Your task to perform on an android device: Go to notification settings Image 0: 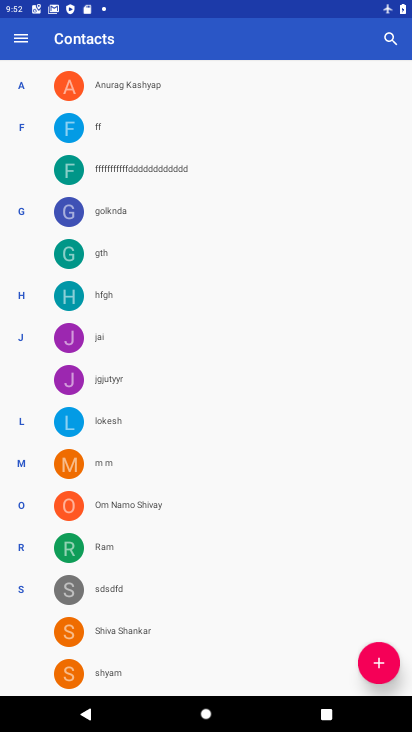
Step 0: press home button
Your task to perform on an android device: Go to notification settings Image 1: 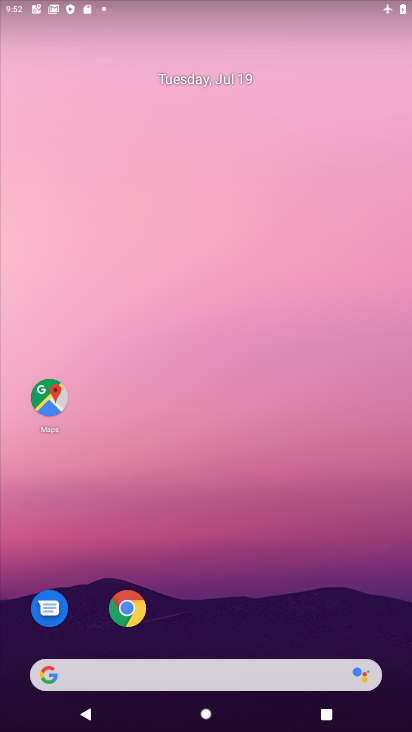
Step 1: drag from (290, 584) to (279, 120)
Your task to perform on an android device: Go to notification settings Image 2: 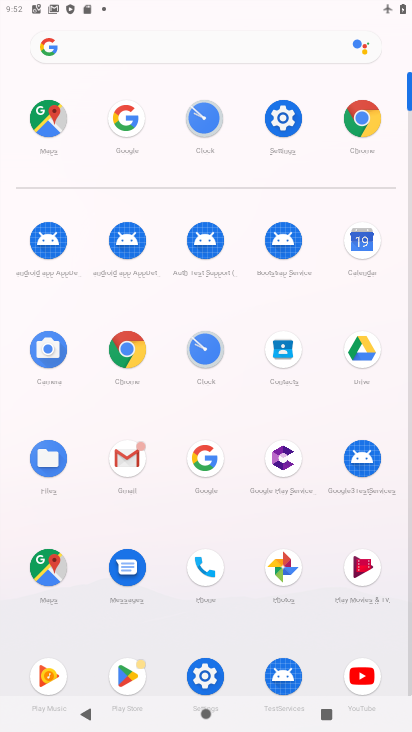
Step 2: click (289, 122)
Your task to perform on an android device: Go to notification settings Image 3: 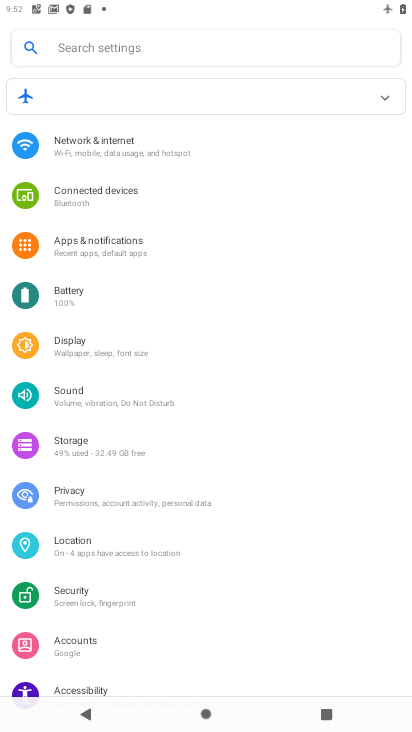
Step 3: click (121, 241)
Your task to perform on an android device: Go to notification settings Image 4: 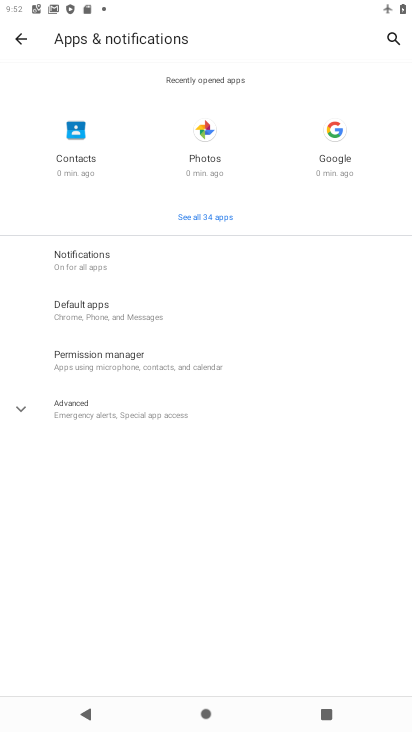
Step 4: click (105, 254)
Your task to perform on an android device: Go to notification settings Image 5: 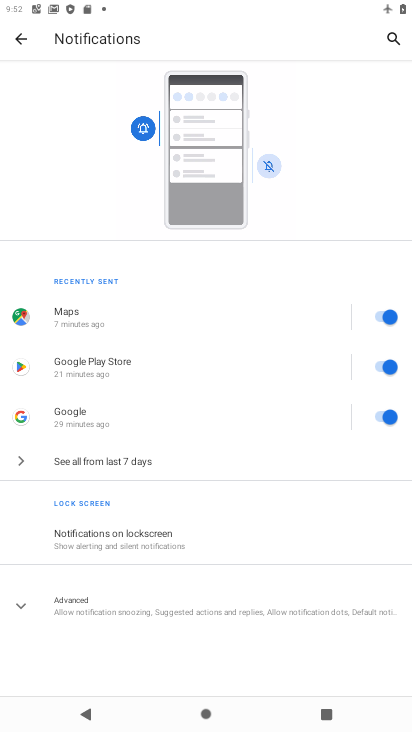
Step 5: task complete